Your task to perform on an android device: Open Maps and search for coffee Image 0: 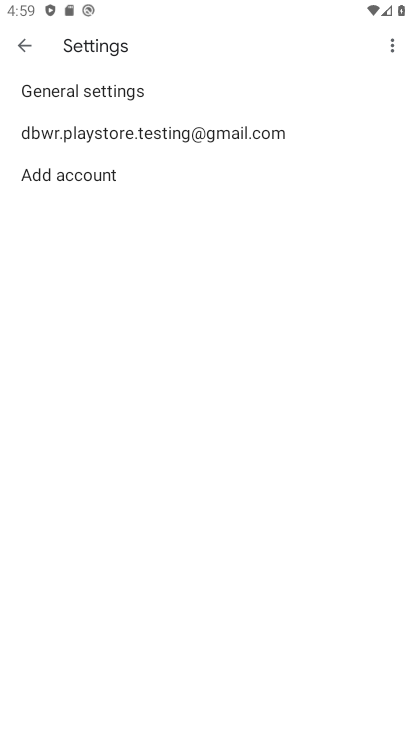
Step 0: press home button
Your task to perform on an android device: Open Maps and search for coffee Image 1: 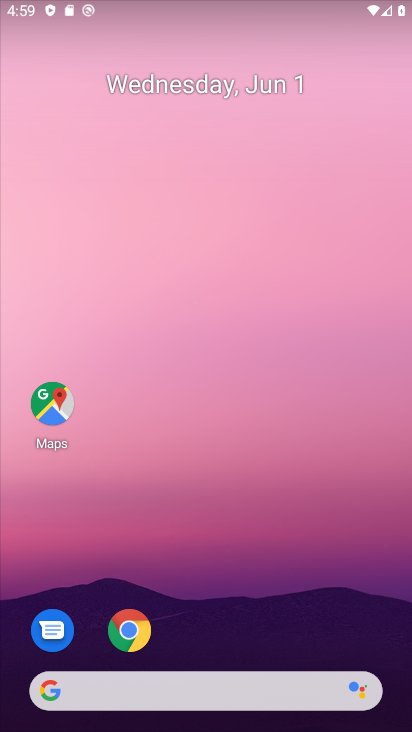
Step 1: click (329, 250)
Your task to perform on an android device: Open Maps and search for coffee Image 2: 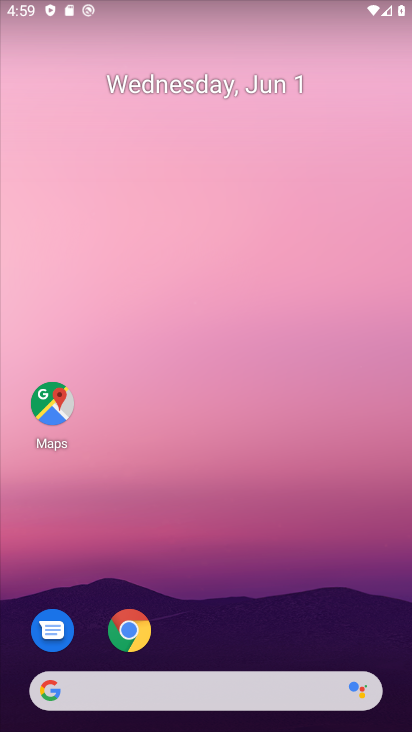
Step 2: drag from (200, 666) to (294, 195)
Your task to perform on an android device: Open Maps and search for coffee Image 3: 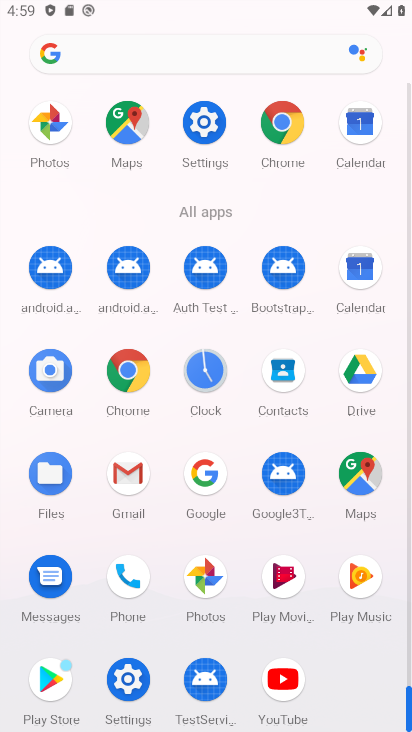
Step 3: click (353, 489)
Your task to perform on an android device: Open Maps and search for coffee Image 4: 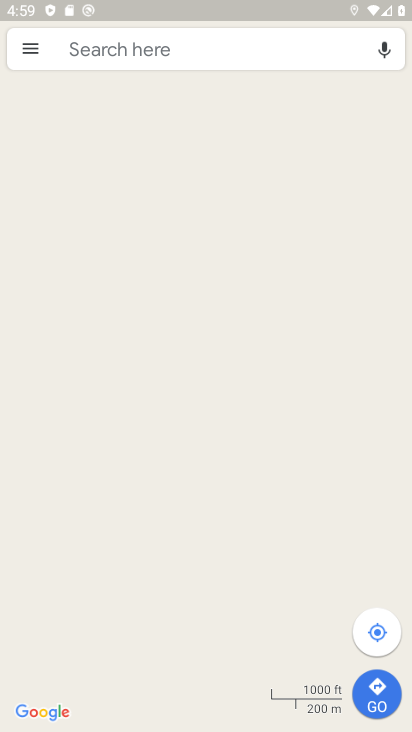
Step 4: click (168, 58)
Your task to perform on an android device: Open Maps and search for coffee Image 5: 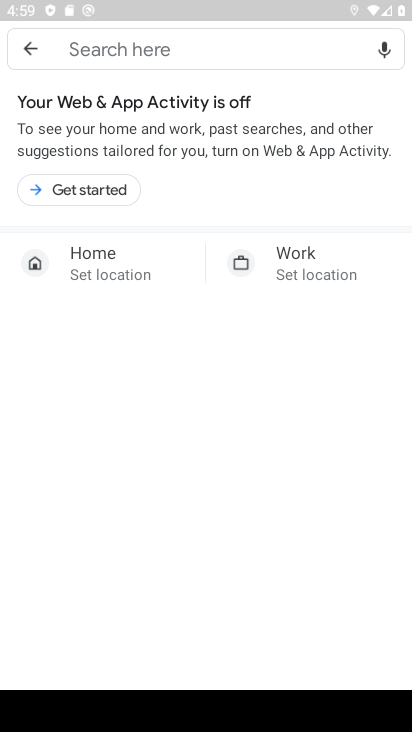
Step 5: type "Coffee"
Your task to perform on an android device: Open Maps and search for coffee Image 6: 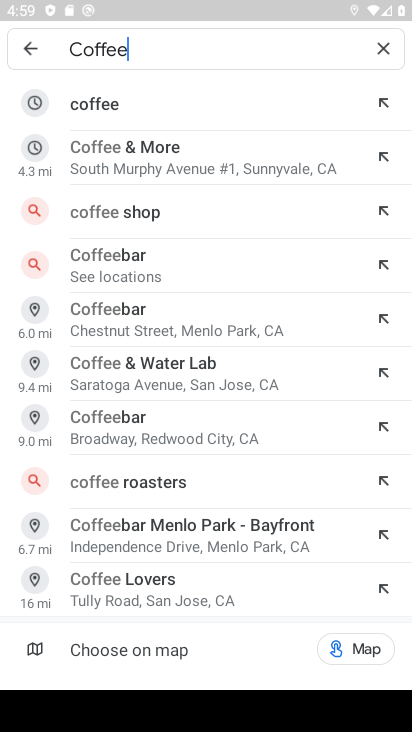
Step 6: click (188, 102)
Your task to perform on an android device: Open Maps and search for coffee Image 7: 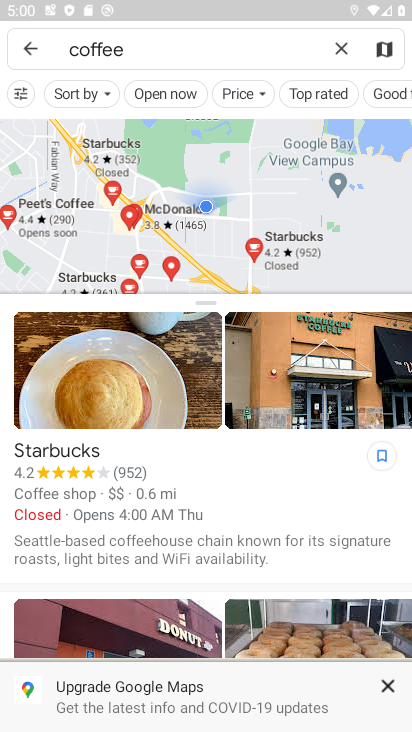
Step 7: task complete